Your task to perform on an android device: Open calendar and show me the second week of next month Image 0: 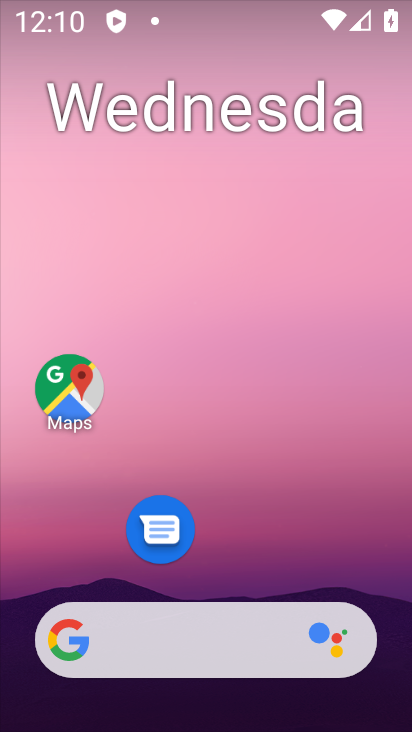
Step 0: drag from (227, 592) to (270, 68)
Your task to perform on an android device: Open calendar and show me the second week of next month Image 1: 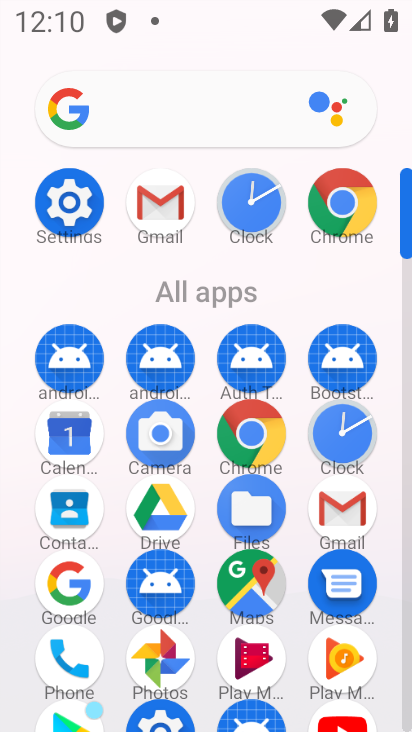
Step 1: click (65, 422)
Your task to perform on an android device: Open calendar and show me the second week of next month Image 2: 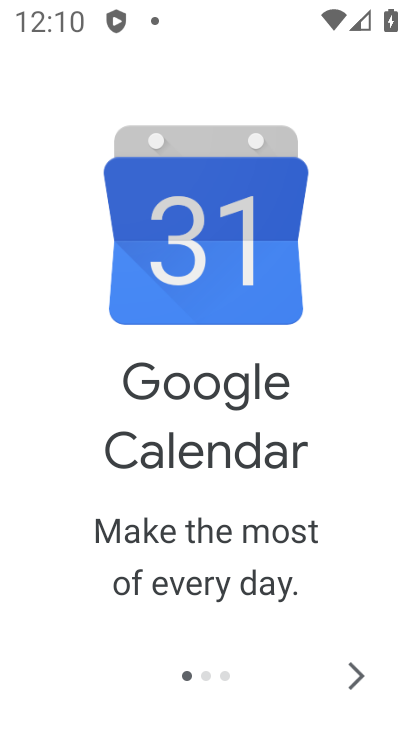
Step 2: click (346, 676)
Your task to perform on an android device: Open calendar and show me the second week of next month Image 3: 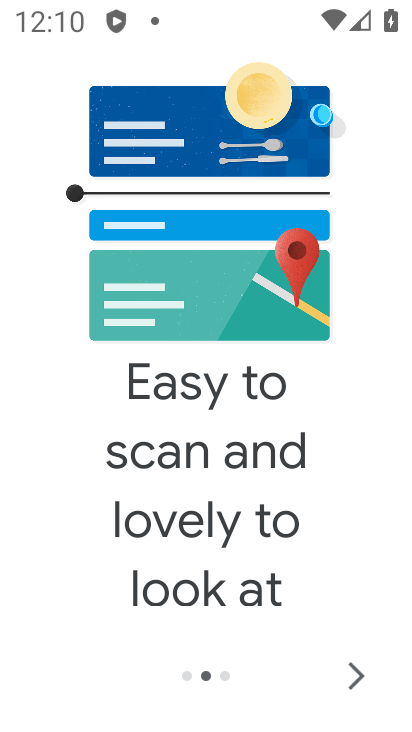
Step 3: click (346, 676)
Your task to perform on an android device: Open calendar and show me the second week of next month Image 4: 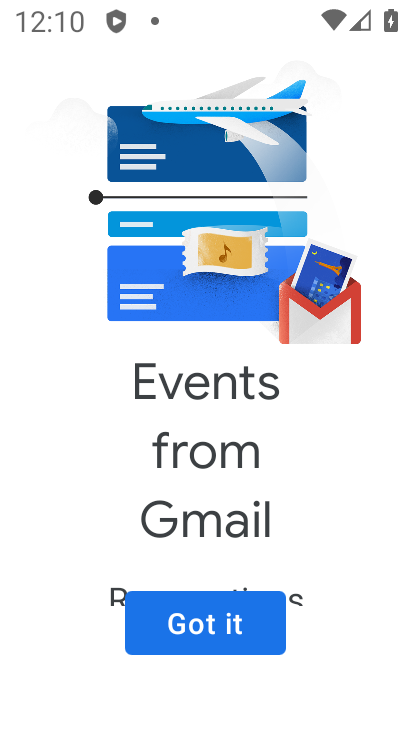
Step 4: click (233, 656)
Your task to perform on an android device: Open calendar and show me the second week of next month Image 5: 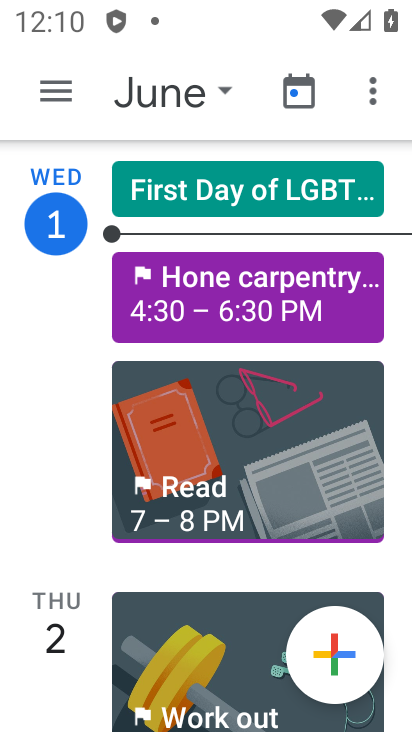
Step 5: click (309, 95)
Your task to perform on an android device: Open calendar and show me the second week of next month Image 6: 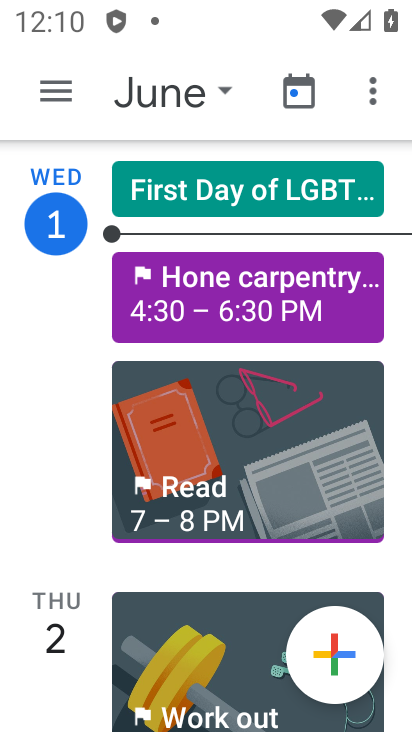
Step 6: click (299, 97)
Your task to perform on an android device: Open calendar and show me the second week of next month Image 7: 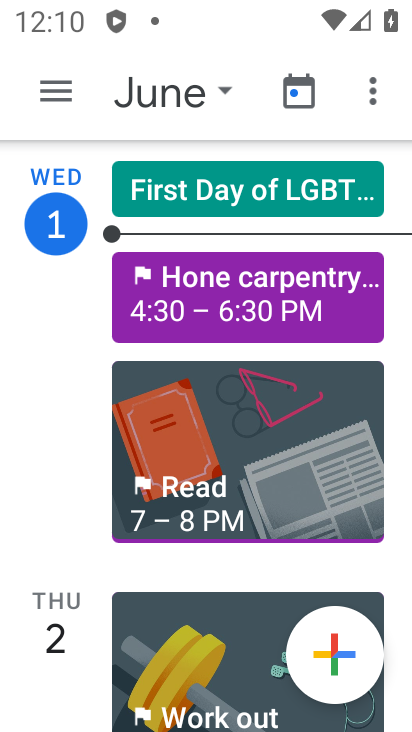
Step 7: click (53, 95)
Your task to perform on an android device: Open calendar and show me the second week of next month Image 8: 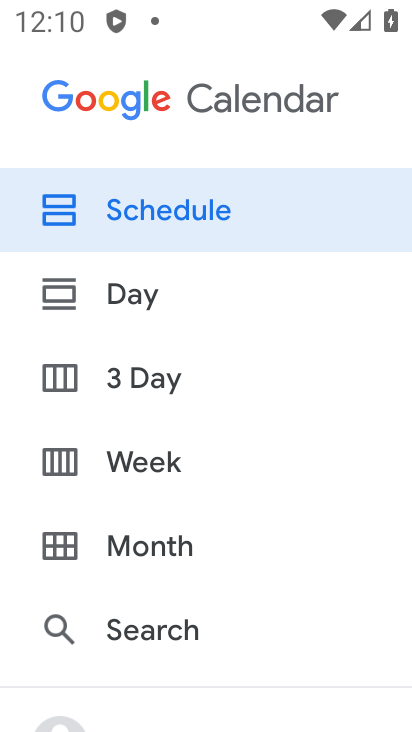
Step 8: click (111, 447)
Your task to perform on an android device: Open calendar and show me the second week of next month Image 9: 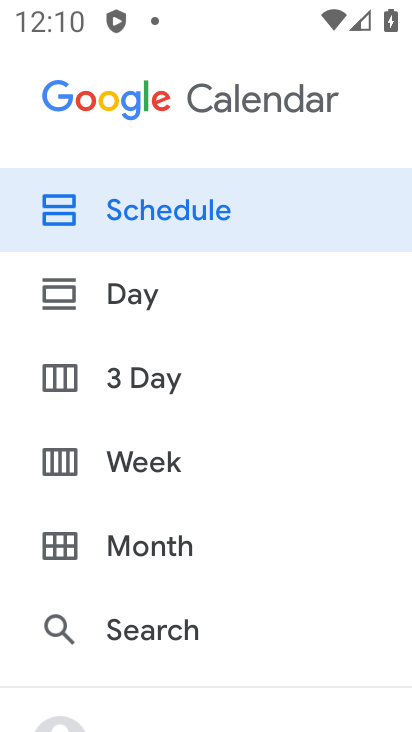
Step 9: drag from (180, 625) to (192, 413)
Your task to perform on an android device: Open calendar and show me the second week of next month Image 10: 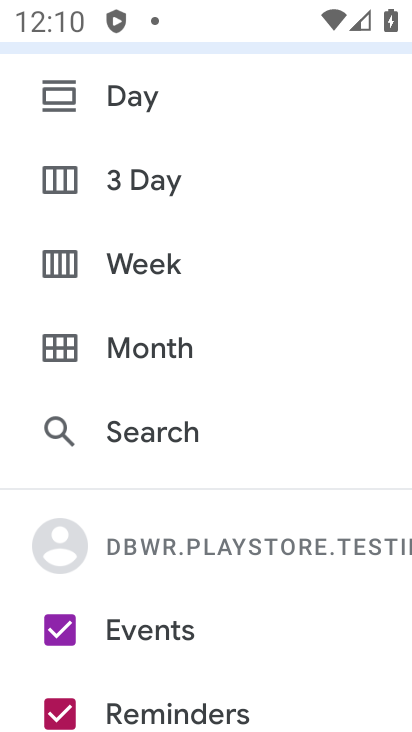
Step 10: click (146, 249)
Your task to perform on an android device: Open calendar and show me the second week of next month Image 11: 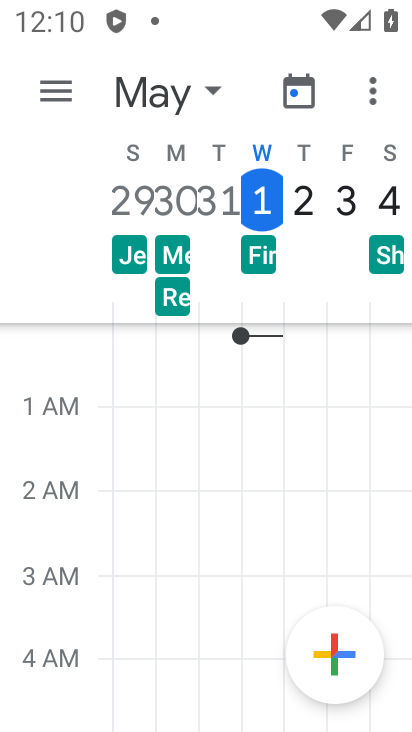
Step 11: task complete